Your task to perform on an android device: turn notification dots on Image 0: 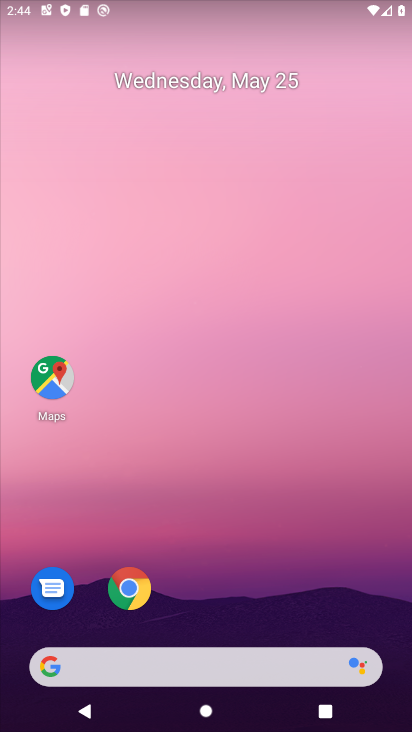
Step 0: drag from (263, 687) to (235, 177)
Your task to perform on an android device: turn notification dots on Image 1: 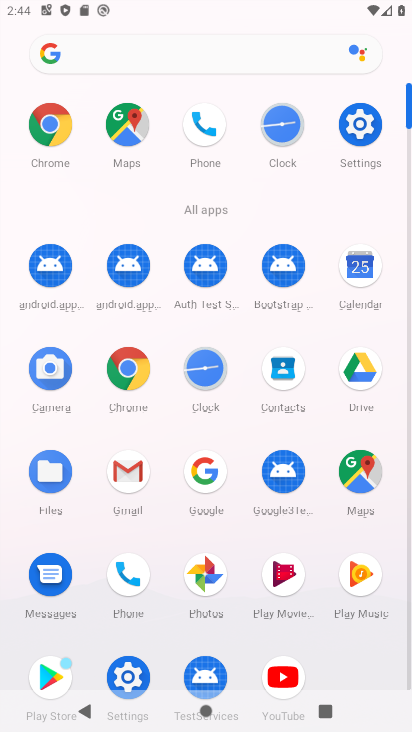
Step 1: click (343, 137)
Your task to perform on an android device: turn notification dots on Image 2: 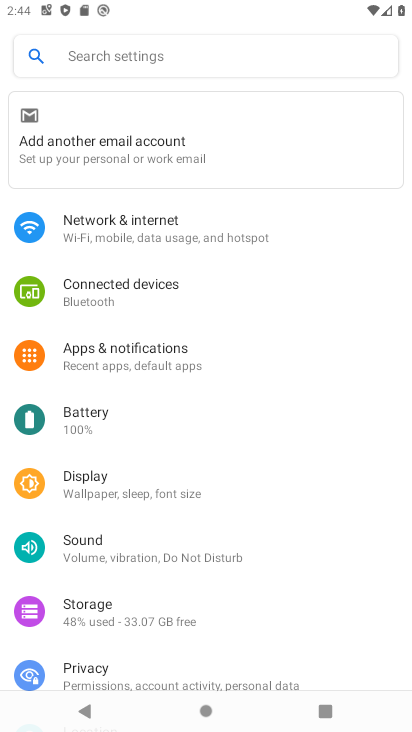
Step 2: click (148, 51)
Your task to perform on an android device: turn notification dots on Image 3: 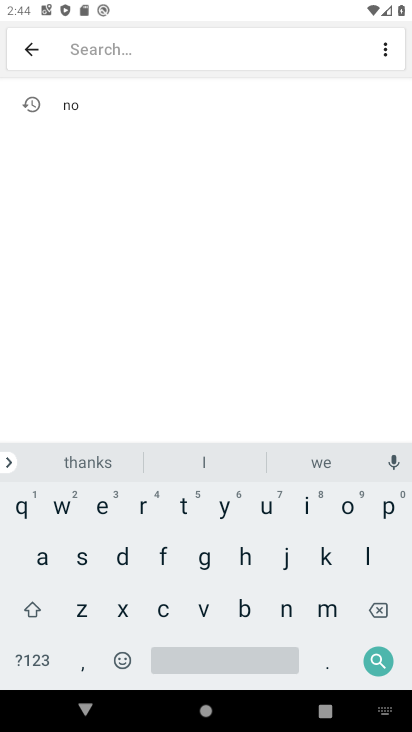
Step 3: click (114, 553)
Your task to perform on an android device: turn notification dots on Image 4: 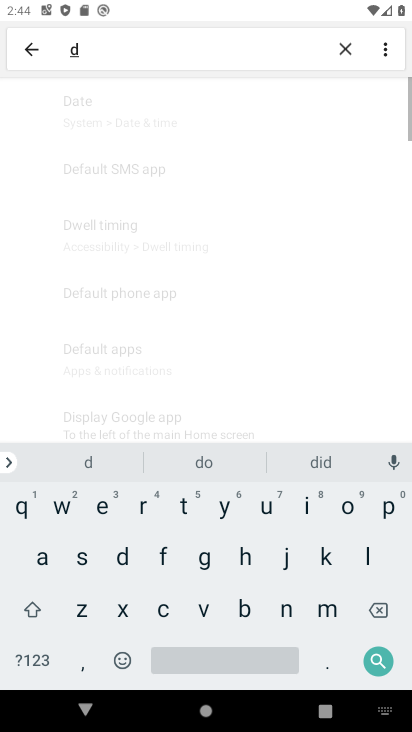
Step 4: click (347, 507)
Your task to perform on an android device: turn notification dots on Image 5: 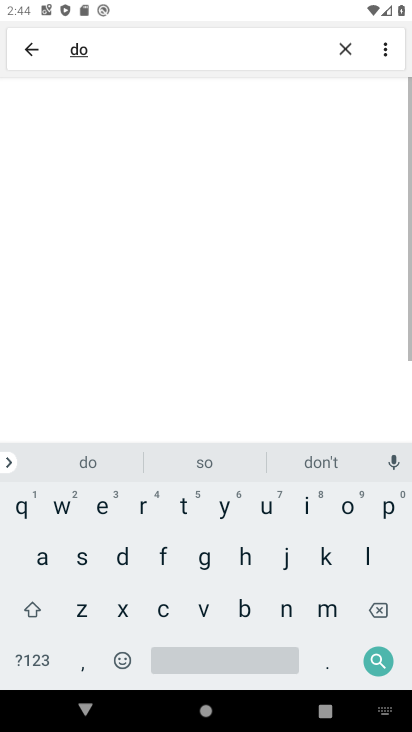
Step 5: click (181, 504)
Your task to perform on an android device: turn notification dots on Image 6: 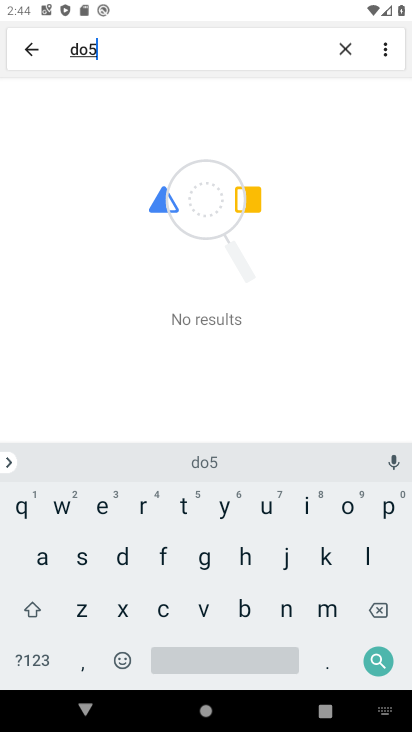
Step 6: click (382, 610)
Your task to perform on an android device: turn notification dots on Image 7: 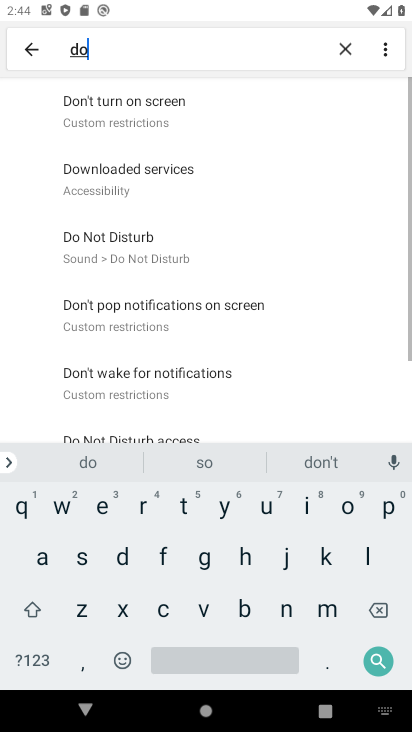
Step 7: click (185, 508)
Your task to perform on an android device: turn notification dots on Image 8: 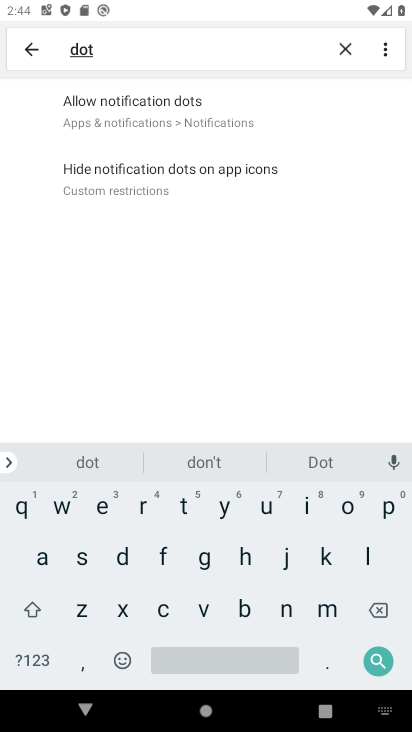
Step 8: click (198, 119)
Your task to perform on an android device: turn notification dots on Image 9: 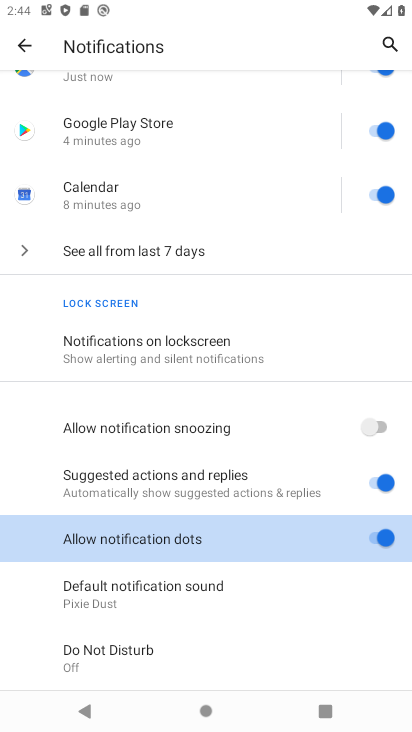
Step 9: click (276, 546)
Your task to perform on an android device: turn notification dots on Image 10: 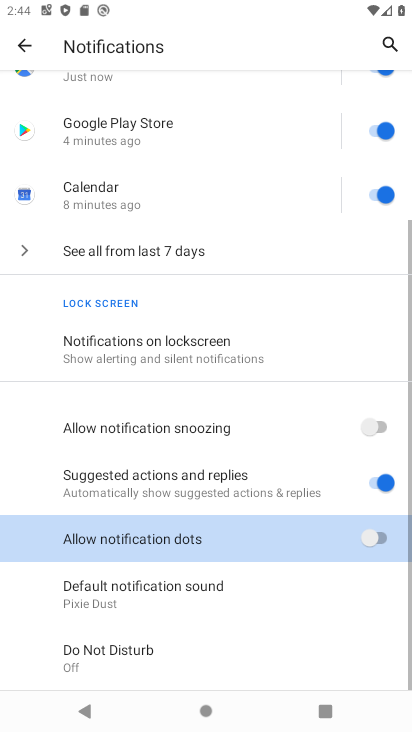
Step 10: click (276, 548)
Your task to perform on an android device: turn notification dots on Image 11: 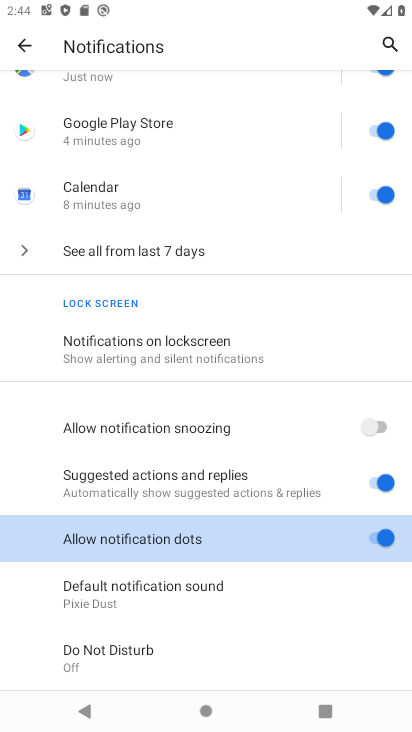
Step 11: task complete